Your task to perform on an android device: turn off location history Image 0: 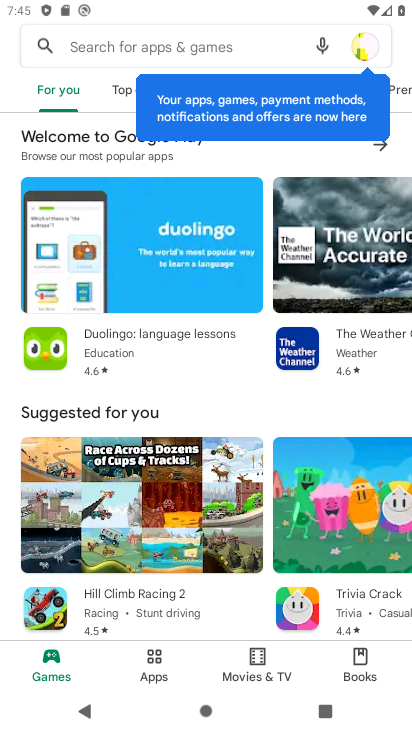
Step 0: press back button
Your task to perform on an android device: turn off location history Image 1: 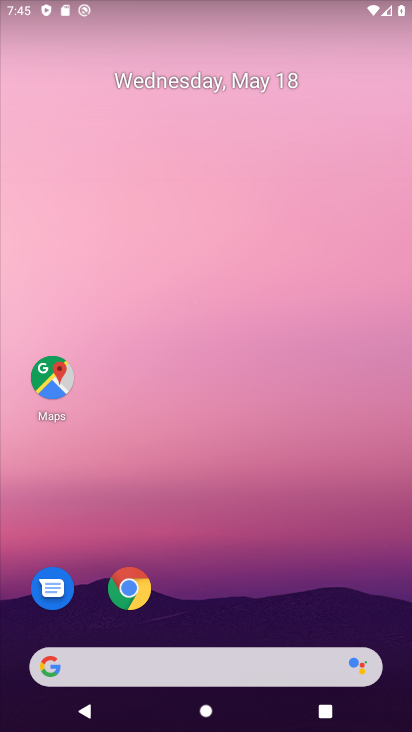
Step 1: drag from (218, 582) to (186, 22)
Your task to perform on an android device: turn off location history Image 2: 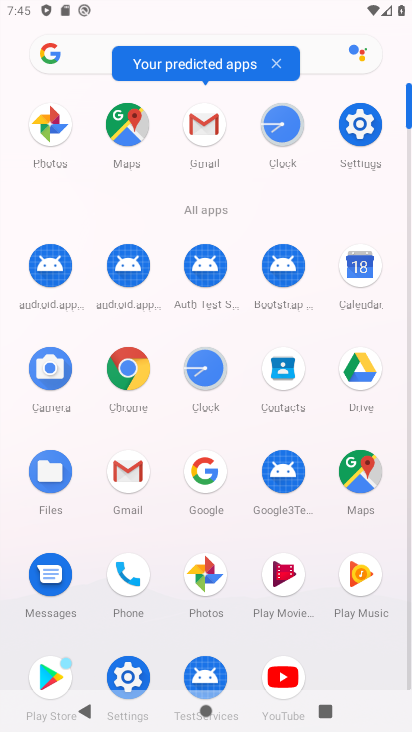
Step 2: click (363, 119)
Your task to perform on an android device: turn off location history Image 3: 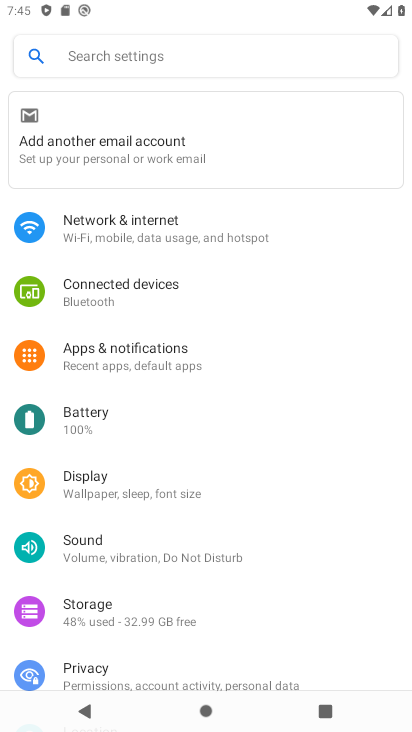
Step 3: drag from (232, 635) to (227, 258)
Your task to perform on an android device: turn off location history Image 4: 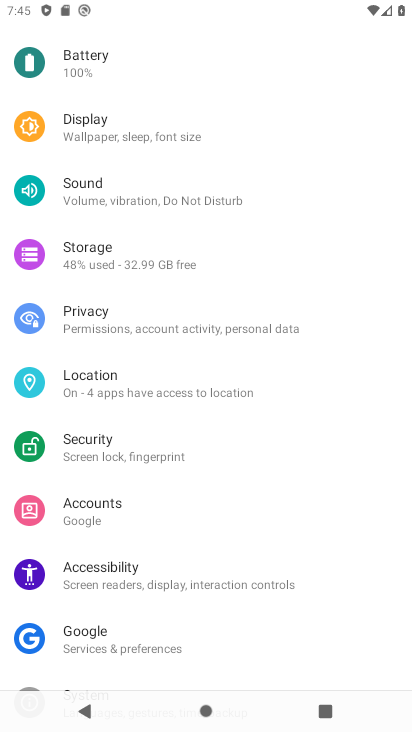
Step 4: click (113, 368)
Your task to perform on an android device: turn off location history Image 5: 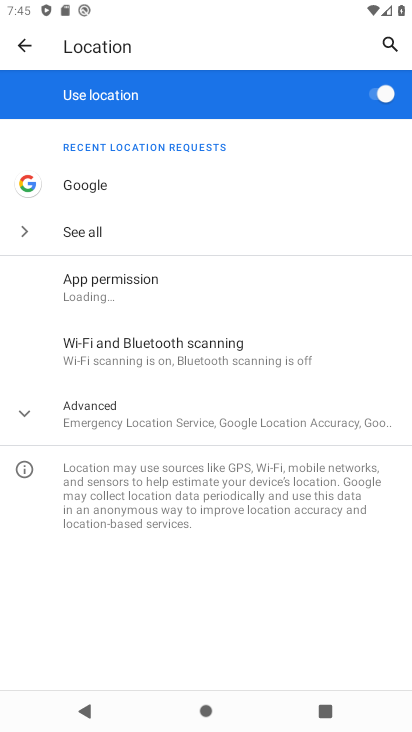
Step 5: click (117, 409)
Your task to perform on an android device: turn off location history Image 6: 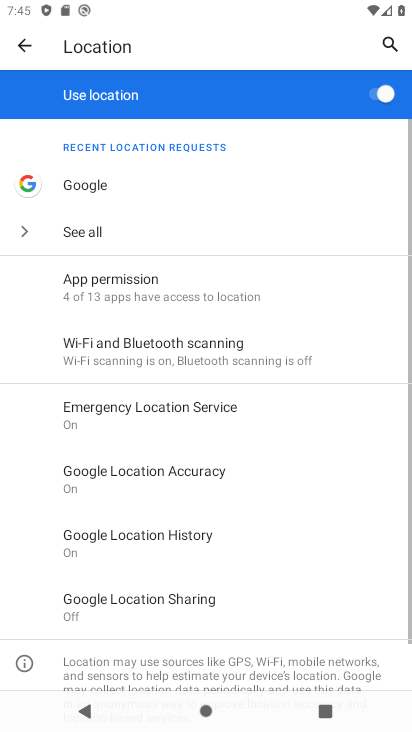
Step 6: click (176, 538)
Your task to perform on an android device: turn off location history Image 7: 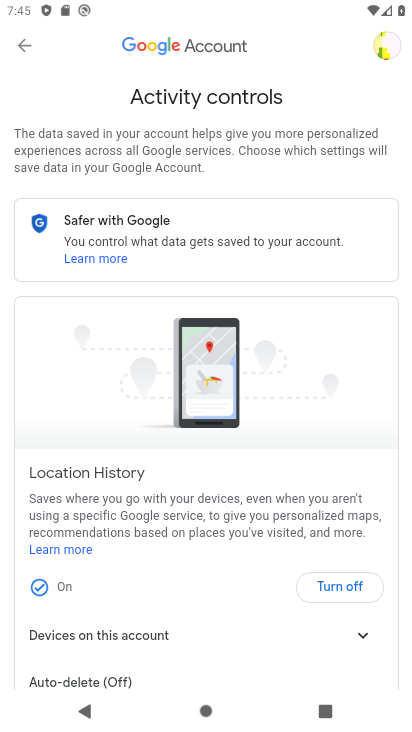
Step 7: click (346, 584)
Your task to perform on an android device: turn off location history Image 8: 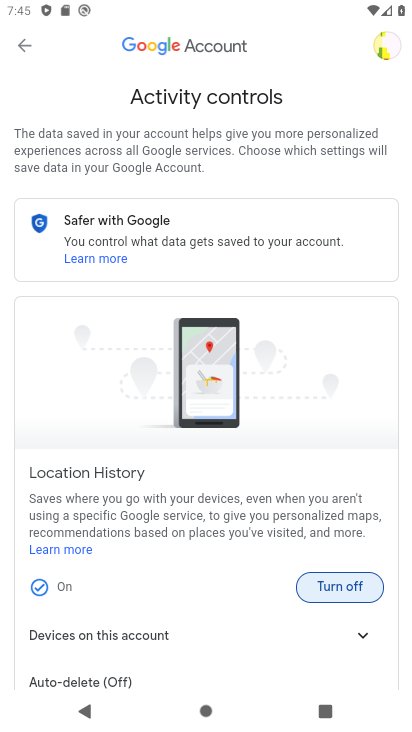
Step 8: click (344, 580)
Your task to perform on an android device: turn off location history Image 9: 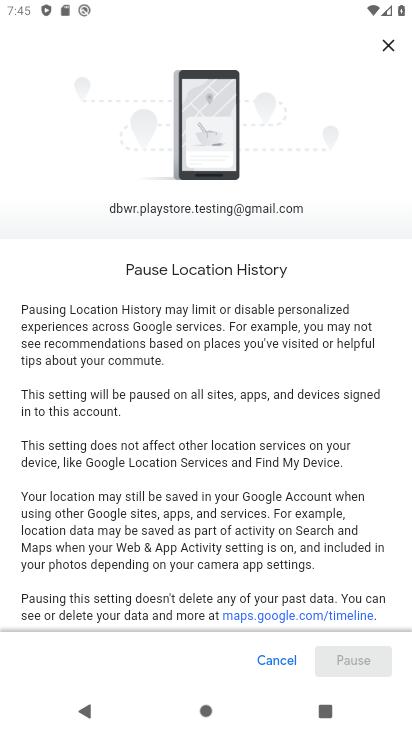
Step 9: drag from (249, 572) to (234, 108)
Your task to perform on an android device: turn off location history Image 10: 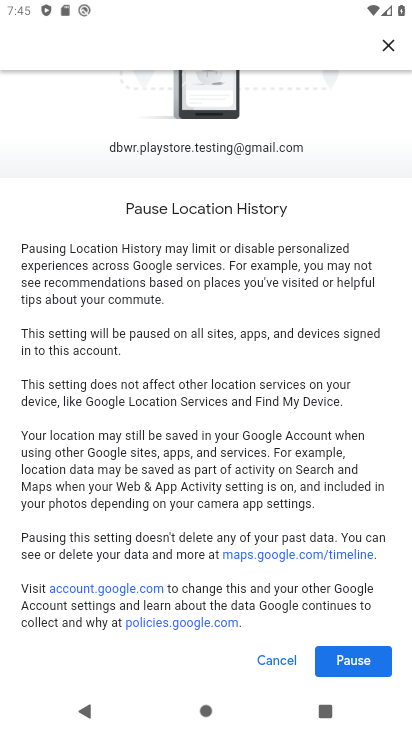
Step 10: click (324, 655)
Your task to perform on an android device: turn off location history Image 11: 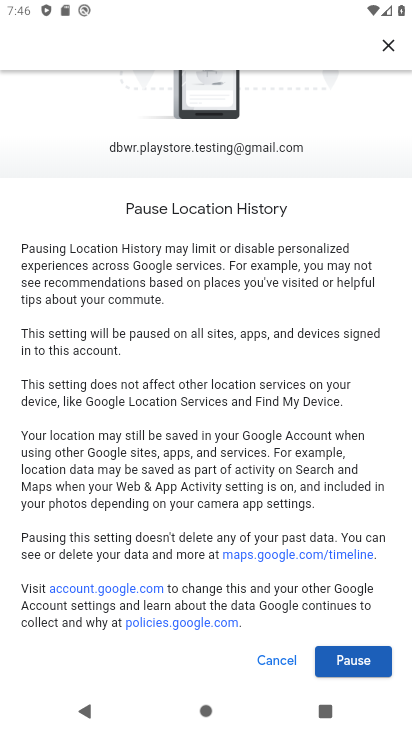
Step 11: drag from (265, 464) to (276, 284)
Your task to perform on an android device: turn off location history Image 12: 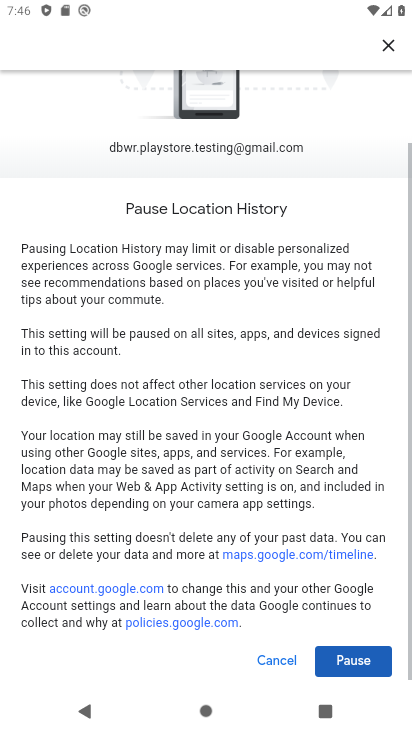
Step 12: click (356, 651)
Your task to perform on an android device: turn off location history Image 13: 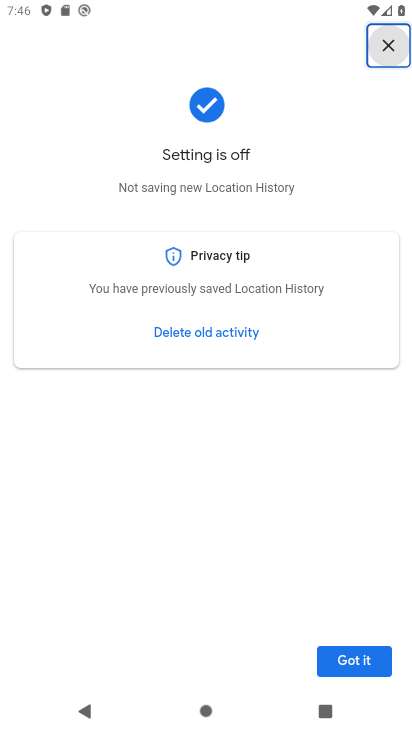
Step 13: task complete